Your task to perform on an android device: install app "HBO Max: Stream TV & Movies" Image 0: 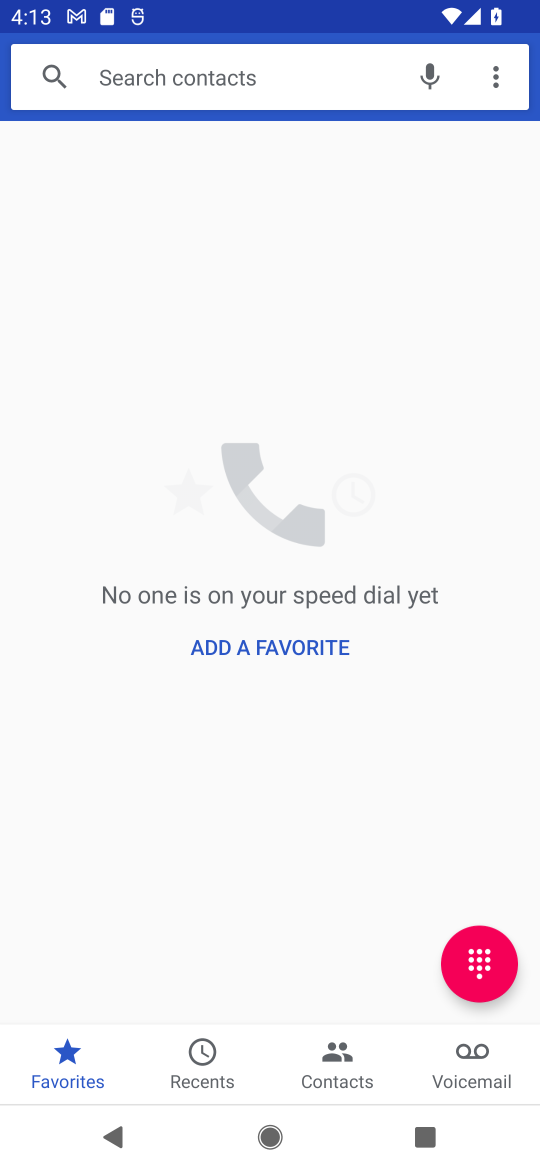
Step 0: press home button
Your task to perform on an android device: install app "HBO Max: Stream TV & Movies" Image 1: 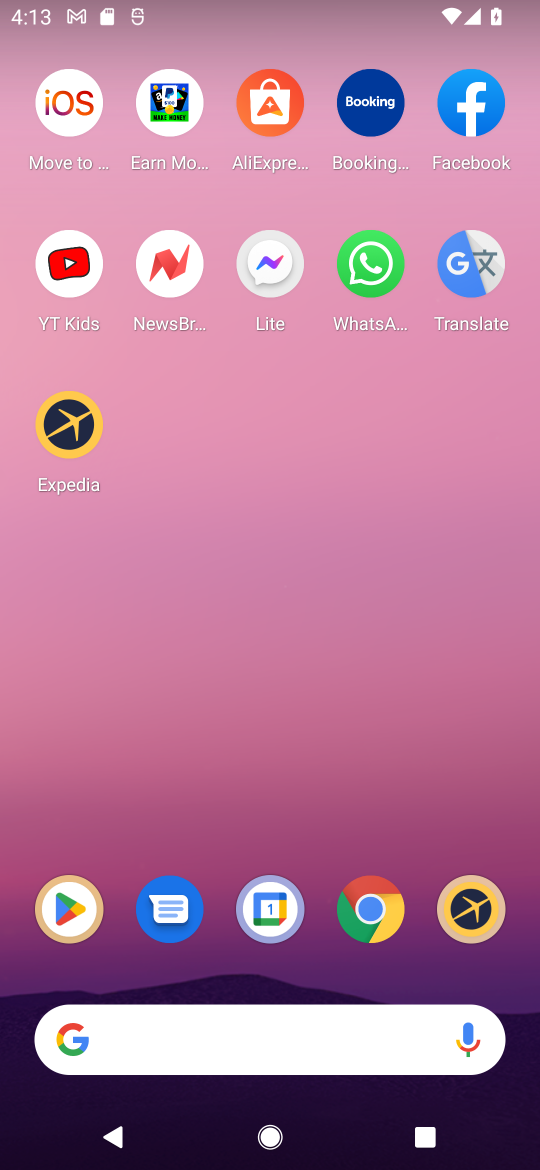
Step 1: click (67, 891)
Your task to perform on an android device: install app "HBO Max: Stream TV & Movies" Image 2: 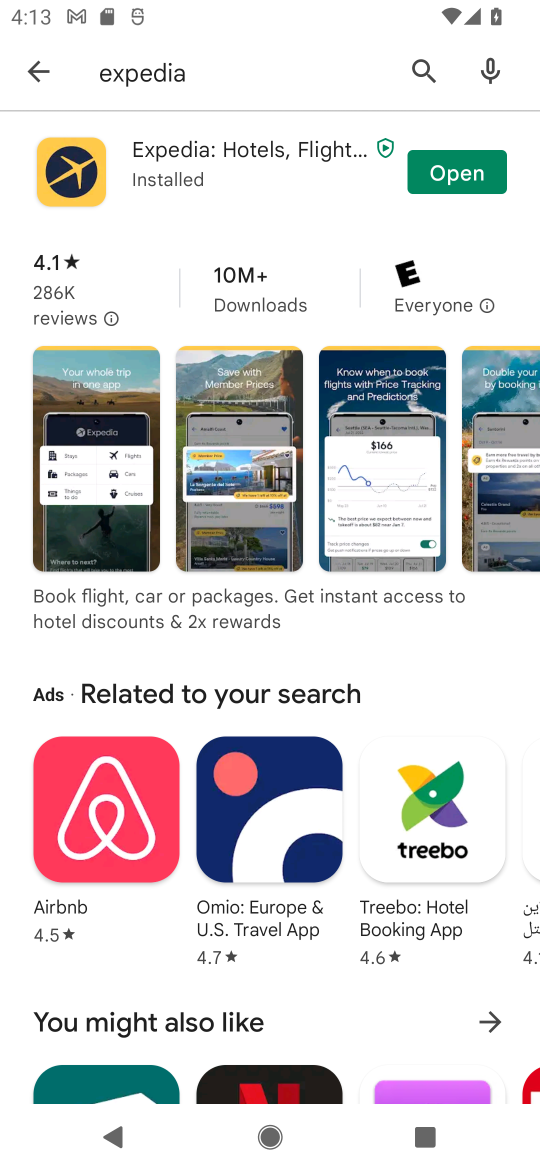
Step 2: click (233, 73)
Your task to perform on an android device: install app "HBO Max: Stream TV & Movies" Image 3: 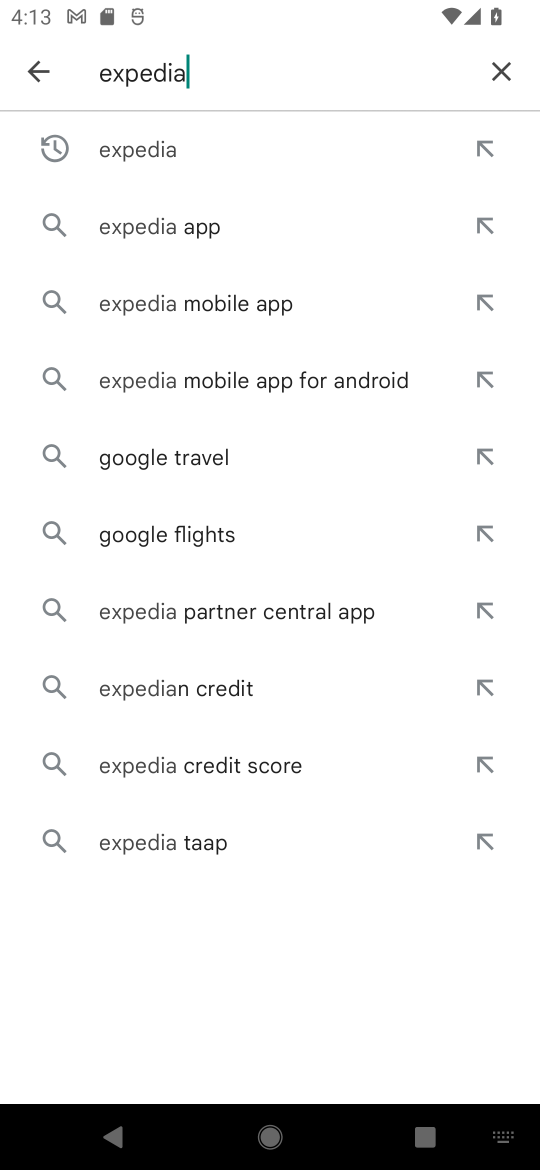
Step 3: click (503, 73)
Your task to perform on an android device: install app "HBO Max: Stream TV & Movies" Image 4: 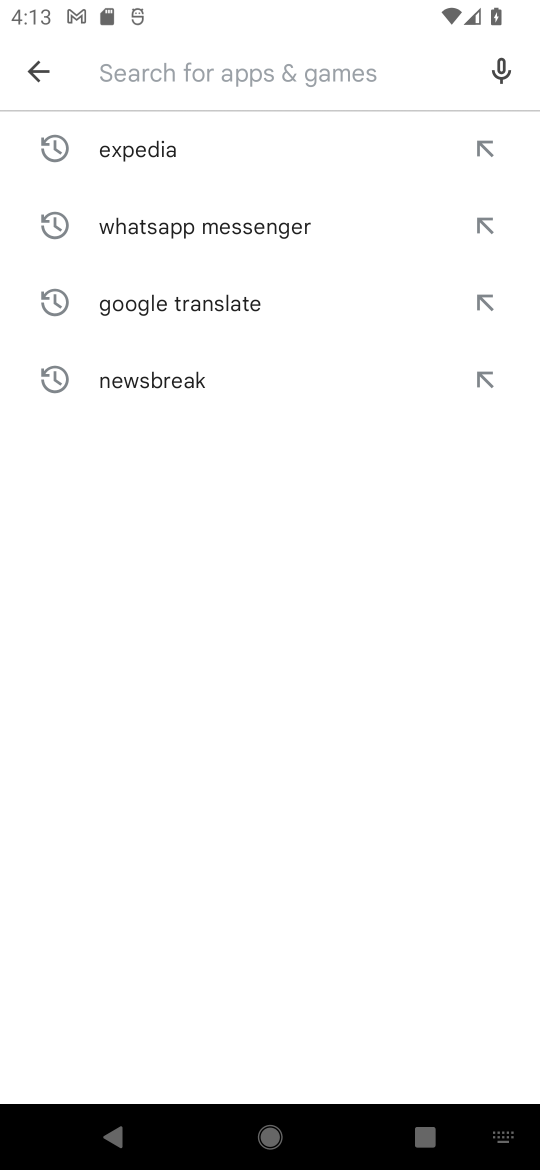
Step 4: type "hbo max"
Your task to perform on an android device: install app "HBO Max: Stream TV & Movies" Image 5: 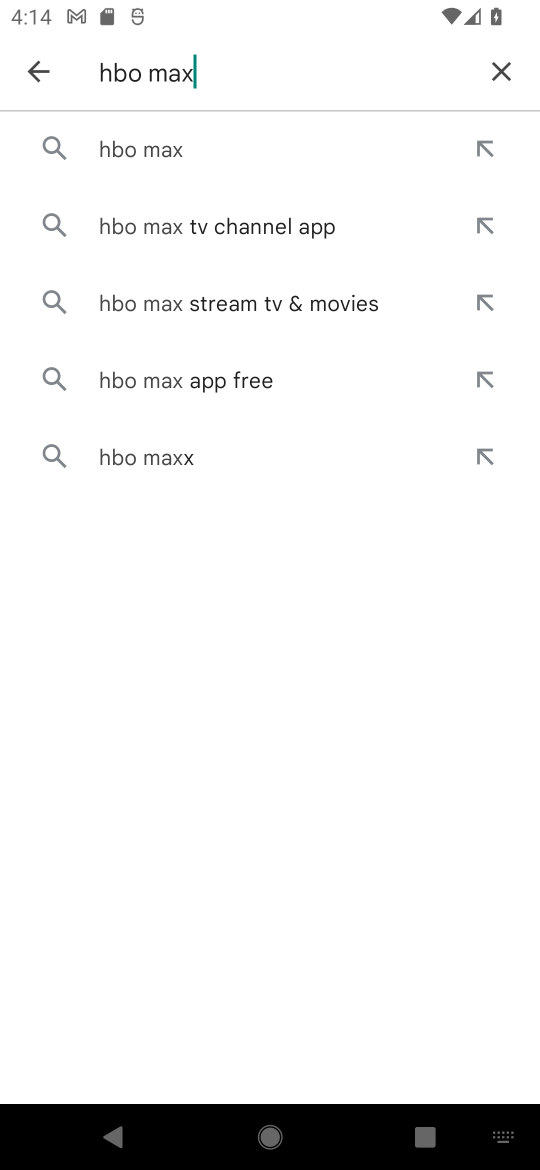
Step 5: click (181, 154)
Your task to perform on an android device: install app "HBO Max: Stream TV & Movies" Image 6: 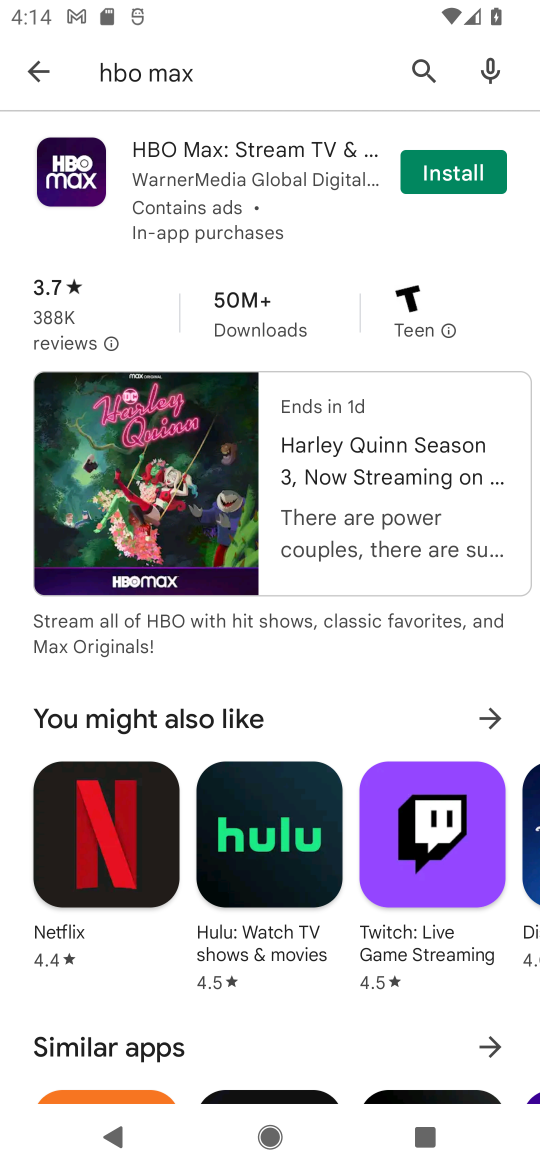
Step 6: click (483, 180)
Your task to perform on an android device: install app "HBO Max: Stream TV & Movies" Image 7: 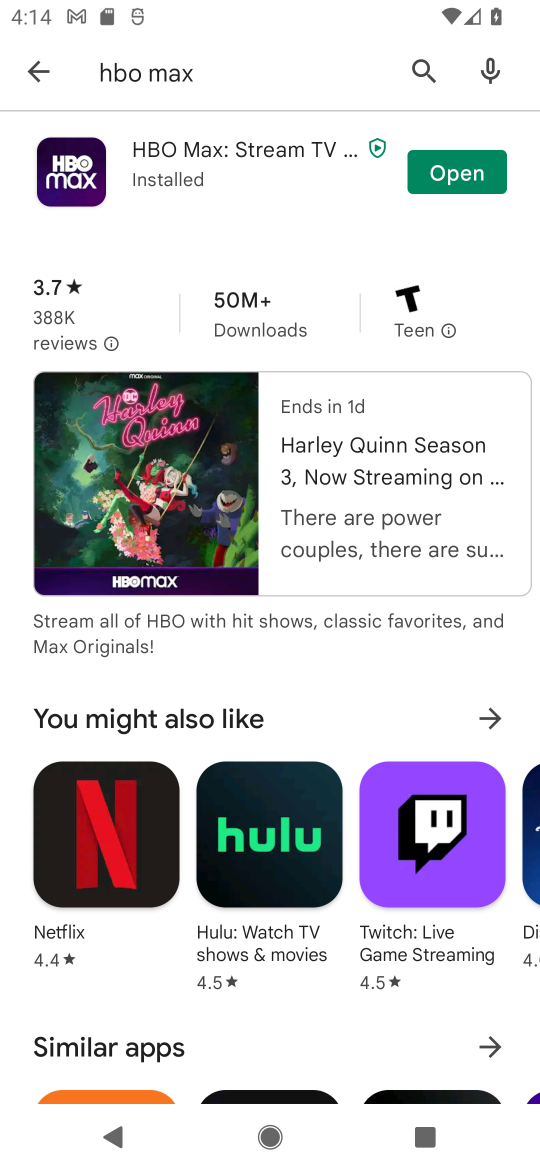
Step 7: task complete